Your task to perform on an android device: open app "TextNow: Call + Text Unlimited" Image 0: 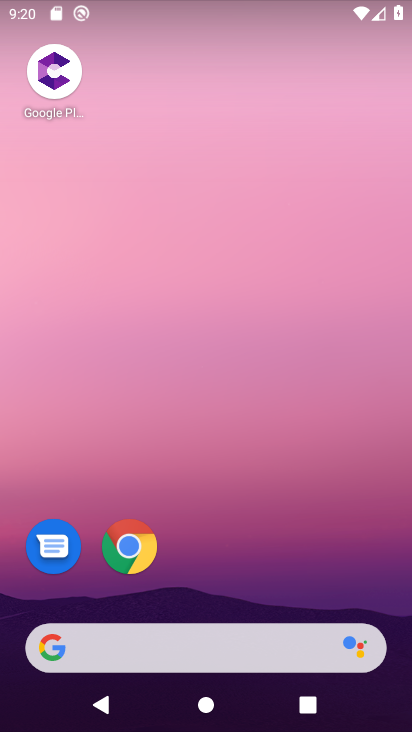
Step 0: drag from (192, 605) to (240, 64)
Your task to perform on an android device: open app "TextNow: Call + Text Unlimited" Image 1: 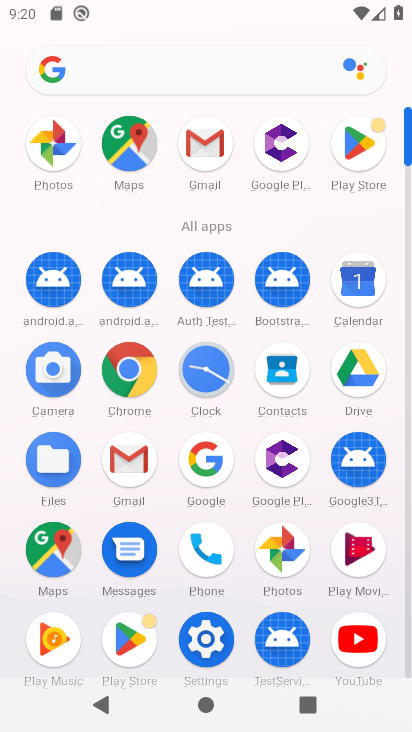
Step 1: click (359, 142)
Your task to perform on an android device: open app "TextNow: Call + Text Unlimited" Image 2: 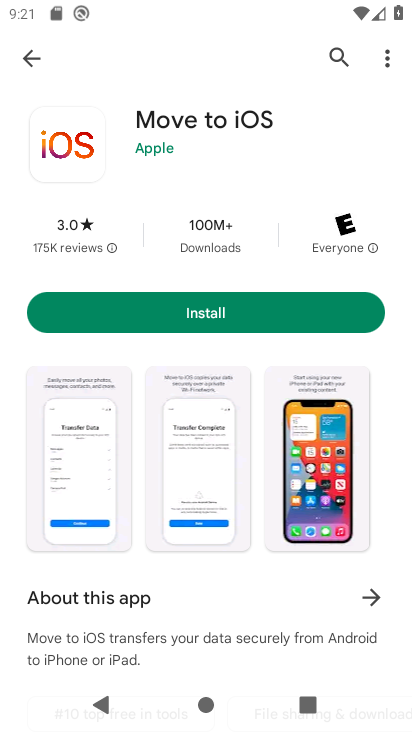
Step 2: click (28, 51)
Your task to perform on an android device: open app "TextNow: Call + Text Unlimited" Image 3: 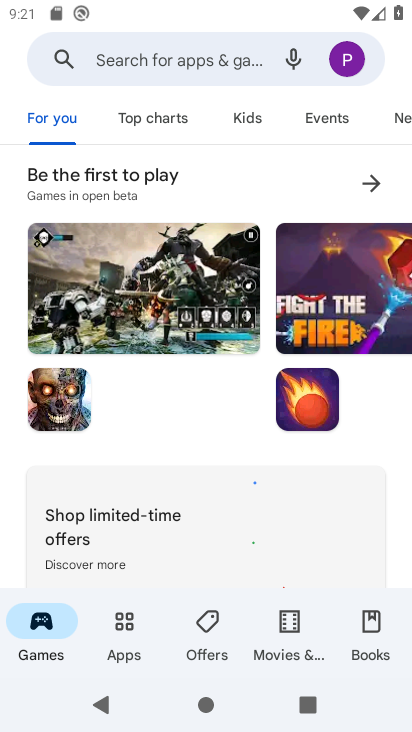
Step 3: click (157, 54)
Your task to perform on an android device: open app "TextNow: Call + Text Unlimited" Image 4: 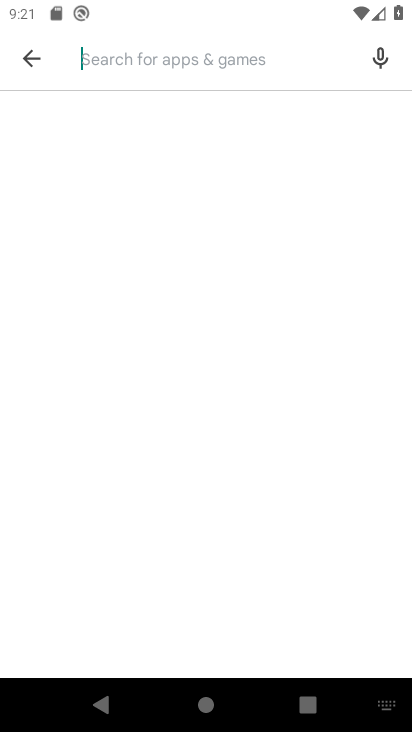
Step 4: type "TextNow: Call + Text Unlimited"
Your task to perform on an android device: open app "TextNow: Call + Text Unlimited" Image 5: 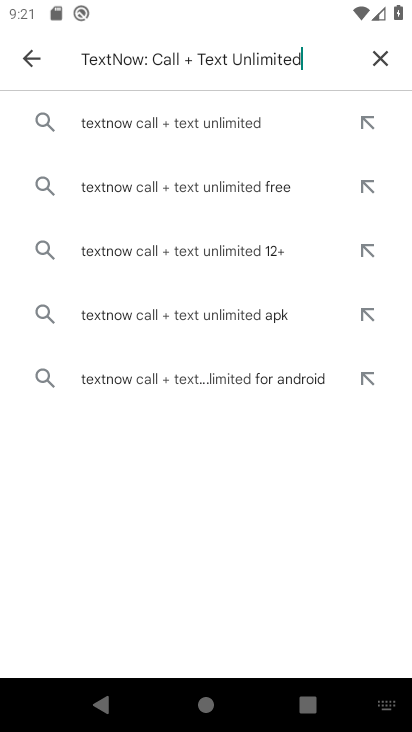
Step 5: click (164, 122)
Your task to perform on an android device: open app "TextNow: Call + Text Unlimited" Image 6: 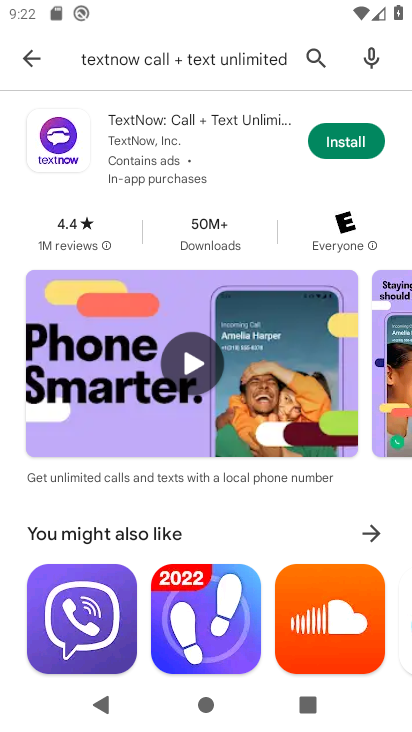
Step 6: task complete